Your task to perform on an android device: Search for Mexican restaurants on Maps Image 0: 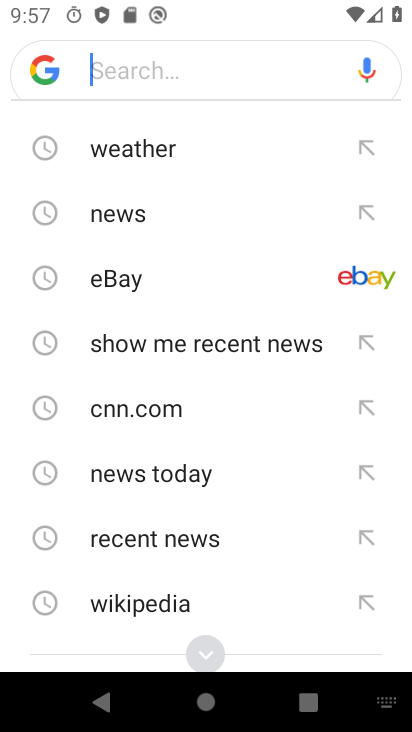
Step 0: press home button
Your task to perform on an android device: Search for Mexican restaurants on Maps Image 1: 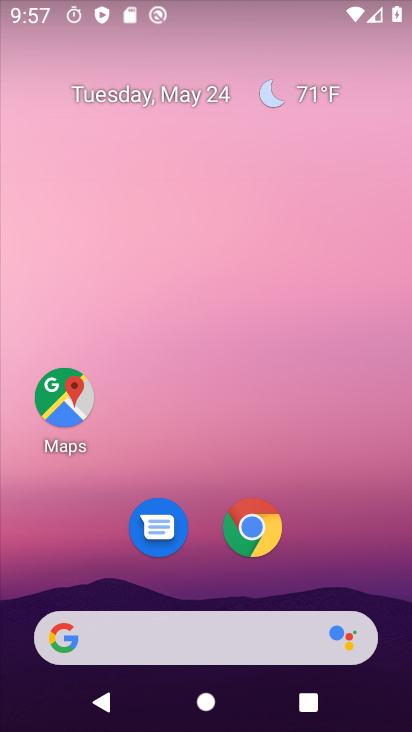
Step 1: click (69, 409)
Your task to perform on an android device: Search for Mexican restaurants on Maps Image 2: 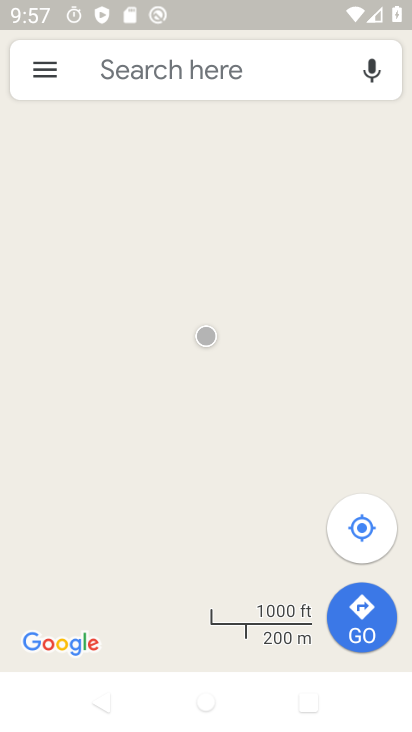
Step 2: click (207, 78)
Your task to perform on an android device: Search for Mexican restaurants on Maps Image 3: 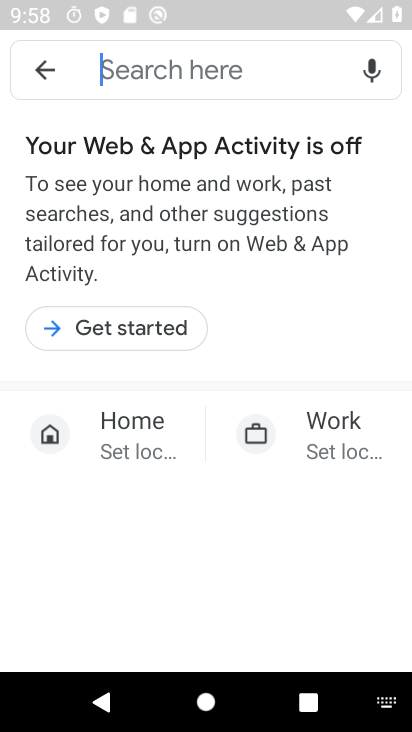
Step 3: click (142, 332)
Your task to perform on an android device: Search for Mexican restaurants on Maps Image 4: 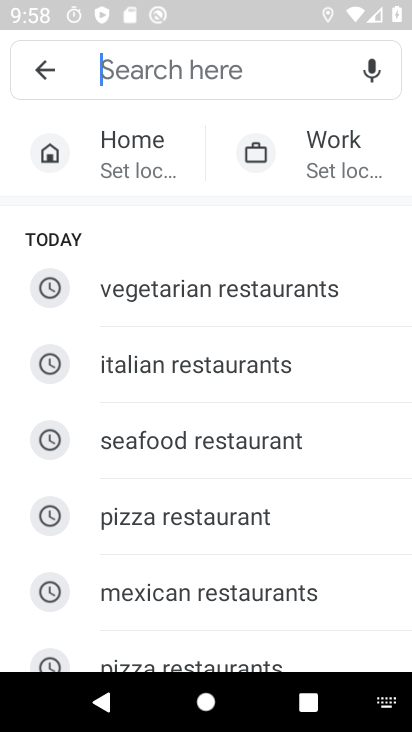
Step 4: drag from (230, 528) to (202, 381)
Your task to perform on an android device: Search for Mexican restaurants on Maps Image 5: 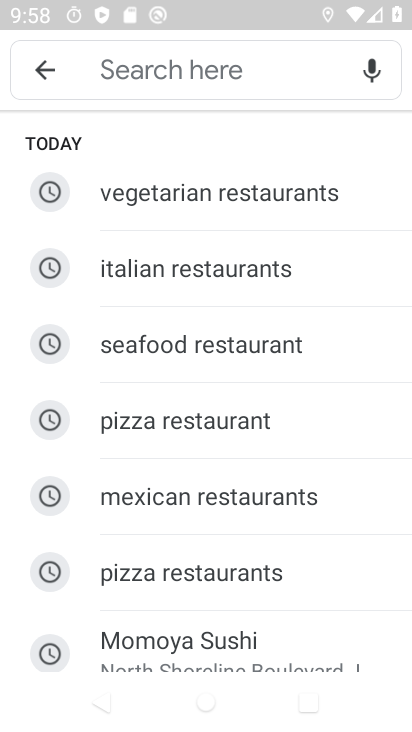
Step 5: click (193, 504)
Your task to perform on an android device: Search for Mexican restaurants on Maps Image 6: 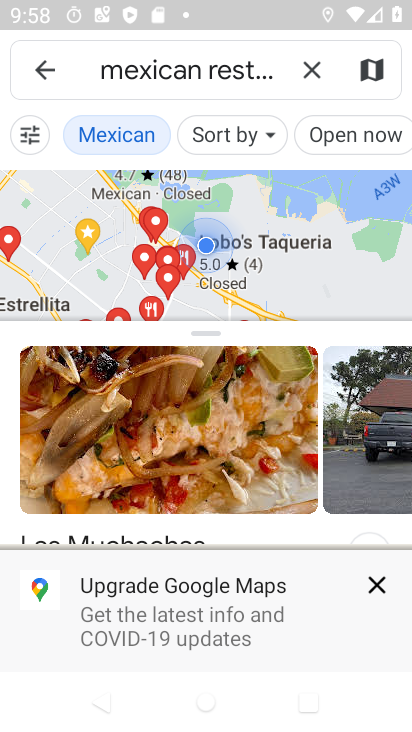
Step 6: task complete